Your task to perform on an android device: turn notification dots on Image 0: 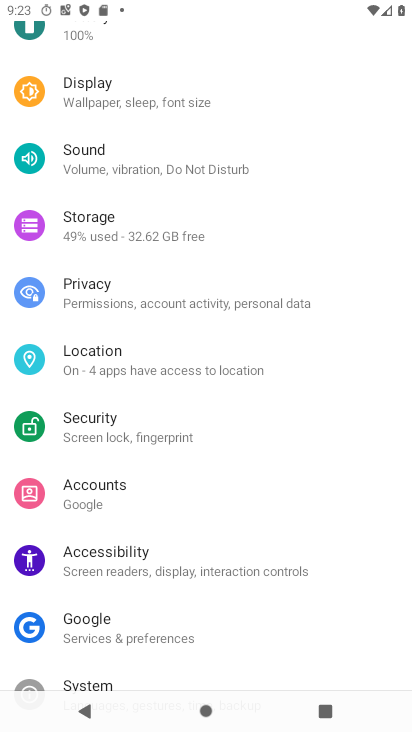
Step 0: drag from (212, 217) to (244, 579)
Your task to perform on an android device: turn notification dots on Image 1: 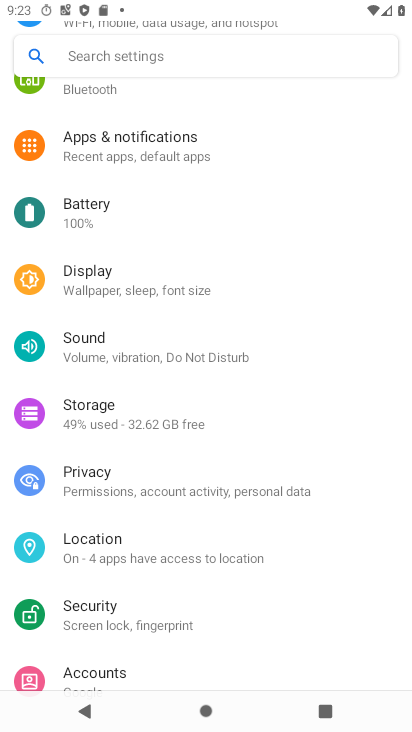
Step 1: click (81, 142)
Your task to perform on an android device: turn notification dots on Image 2: 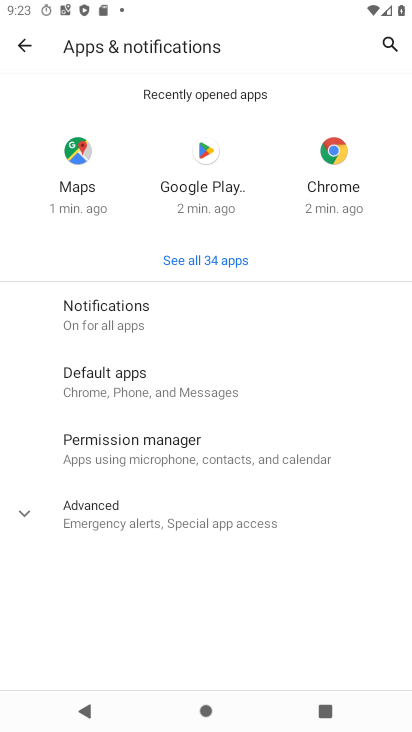
Step 2: click (254, 526)
Your task to perform on an android device: turn notification dots on Image 3: 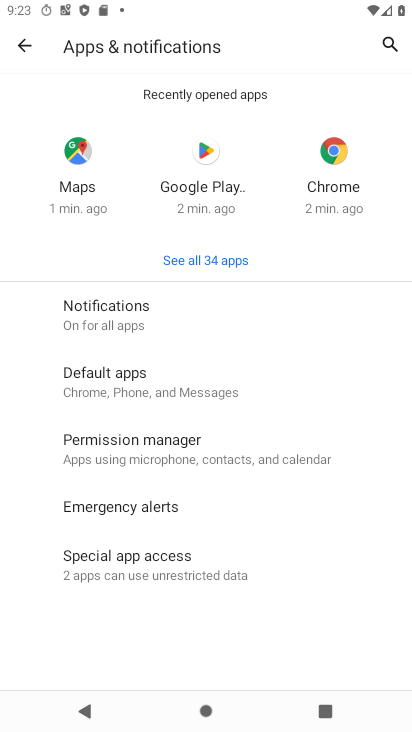
Step 3: click (147, 330)
Your task to perform on an android device: turn notification dots on Image 4: 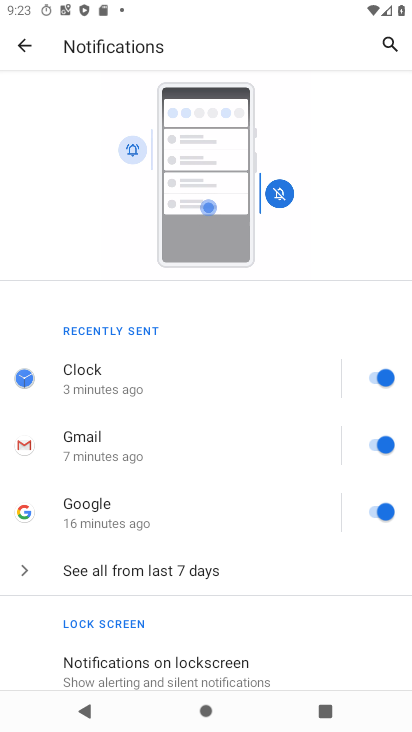
Step 4: drag from (239, 626) to (325, 97)
Your task to perform on an android device: turn notification dots on Image 5: 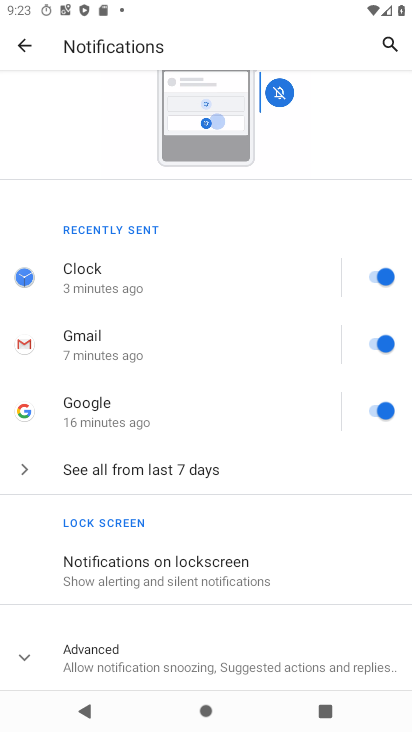
Step 5: click (187, 681)
Your task to perform on an android device: turn notification dots on Image 6: 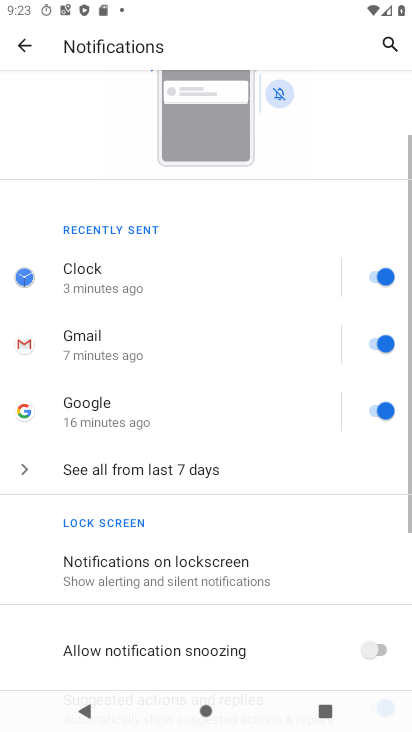
Step 6: task complete